Your task to perform on an android device: delete the emails in spam in the gmail app Image 0: 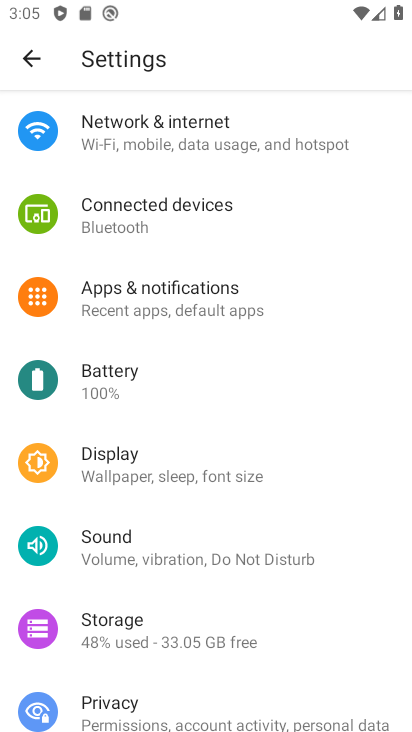
Step 0: press home button
Your task to perform on an android device: delete the emails in spam in the gmail app Image 1: 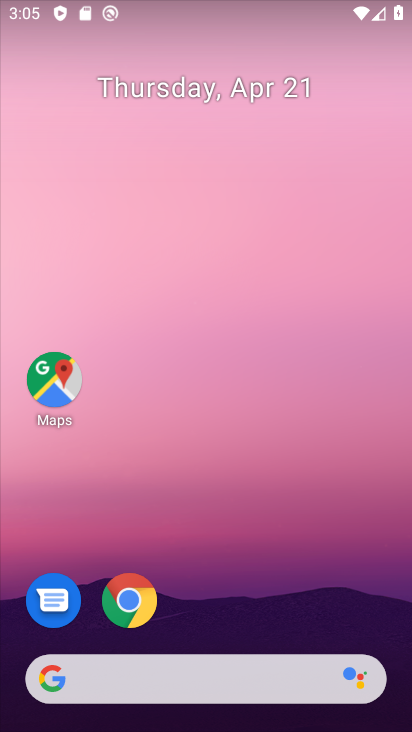
Step 1: drag from (258, 626) to (245, 51)
Your task to perform on an android device: delete the emails in spam in the gmail app Image 2: 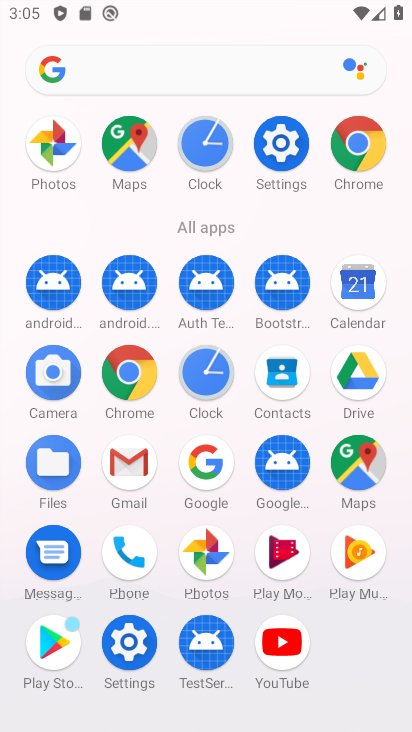
Step 2: click (114, 467)
Your task to perform on an android device: delete the emails in spam in the gmail app Image 3: 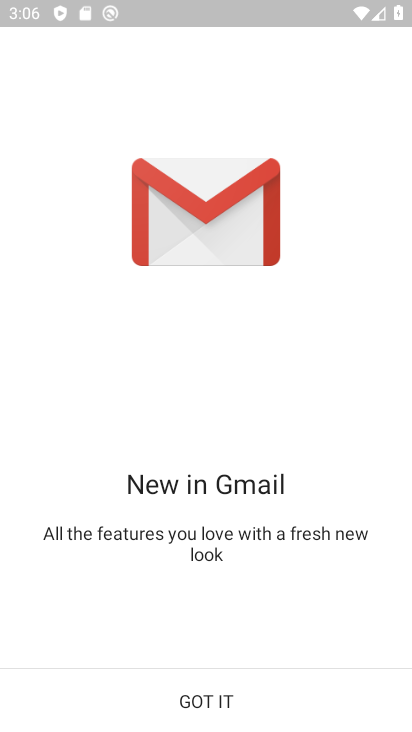
Step 3: click (151, 697)
Your task to perform on an android device: delete the emails in spam in the gmail app Image 4: 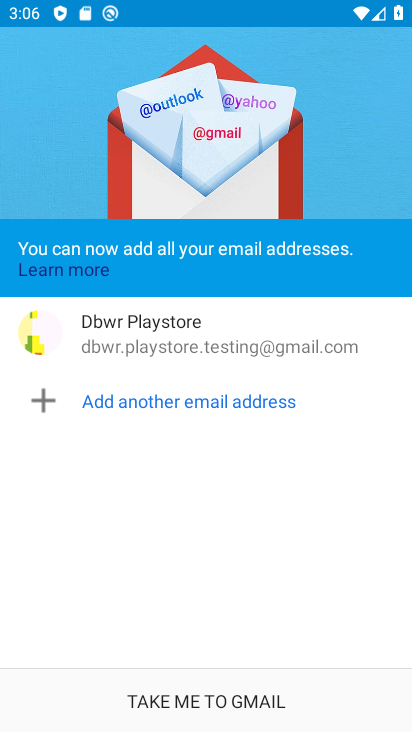
Step 4: click (187, 705)
Your task to perform on an android device: delete the emails in spam in the gmail app Image 5: 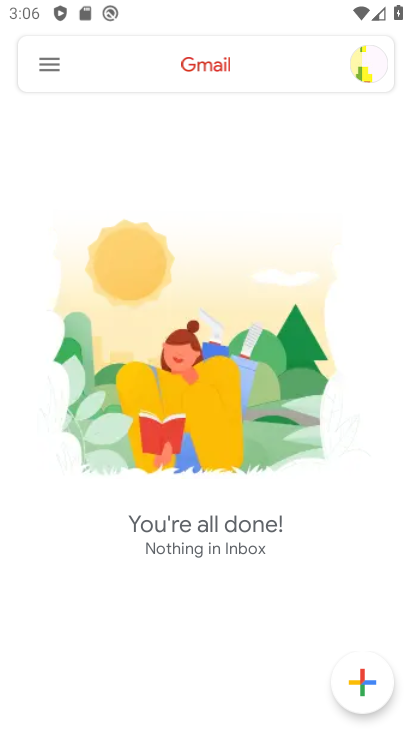
Step 5: click (50, 59)
Your task to perform on an android device: delete the emails in spam in the gmail app Image 6: 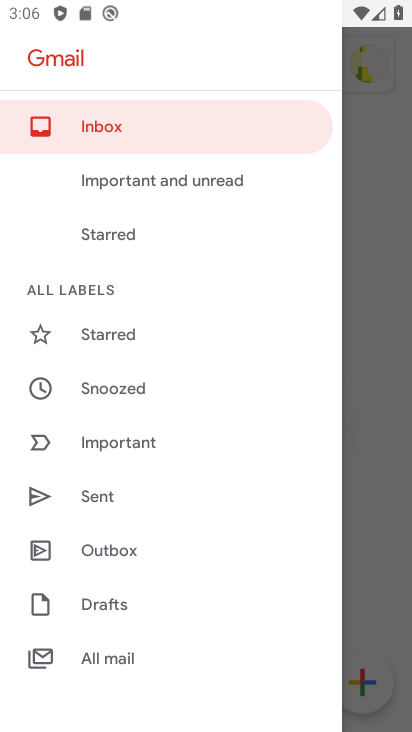
Step 6: drag from (185, 645) to (183, 482)
Your task to perform on an android device: delete the emails in spam in the gmail app Image 7: 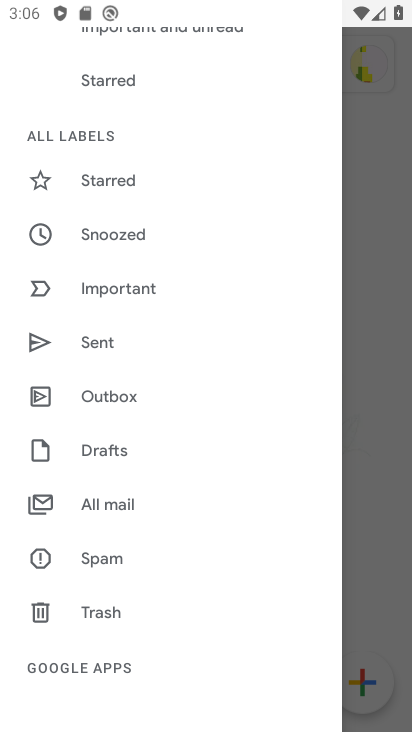
Step 7: drag from (209, 643) to (245, 431)
Your task to perform on an android device: delete the emails in spam in the gmail app Image 8: 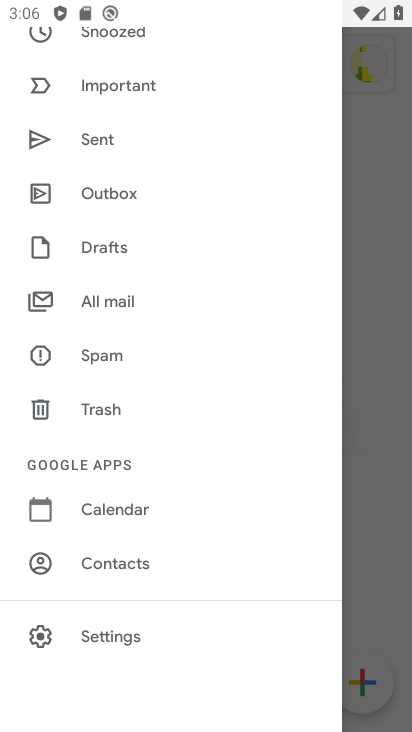
Step 8: click (119, 358)
Your task to perform on an android device: delete the emails in spam in the gmail app Image 9: 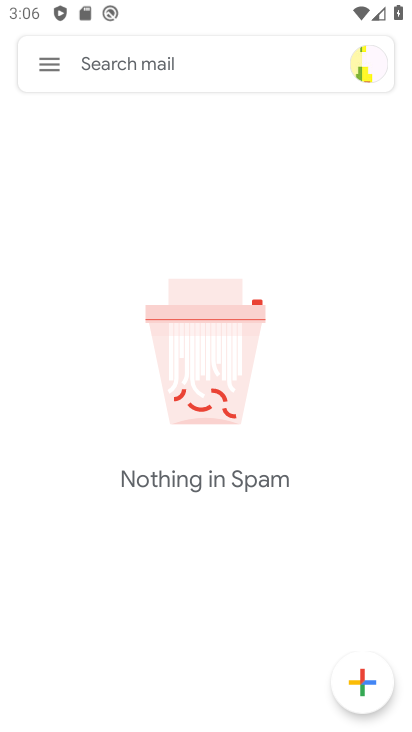
Step 9: task complete